Your task to perform on an android device: install app "Google Maps" Image 0: 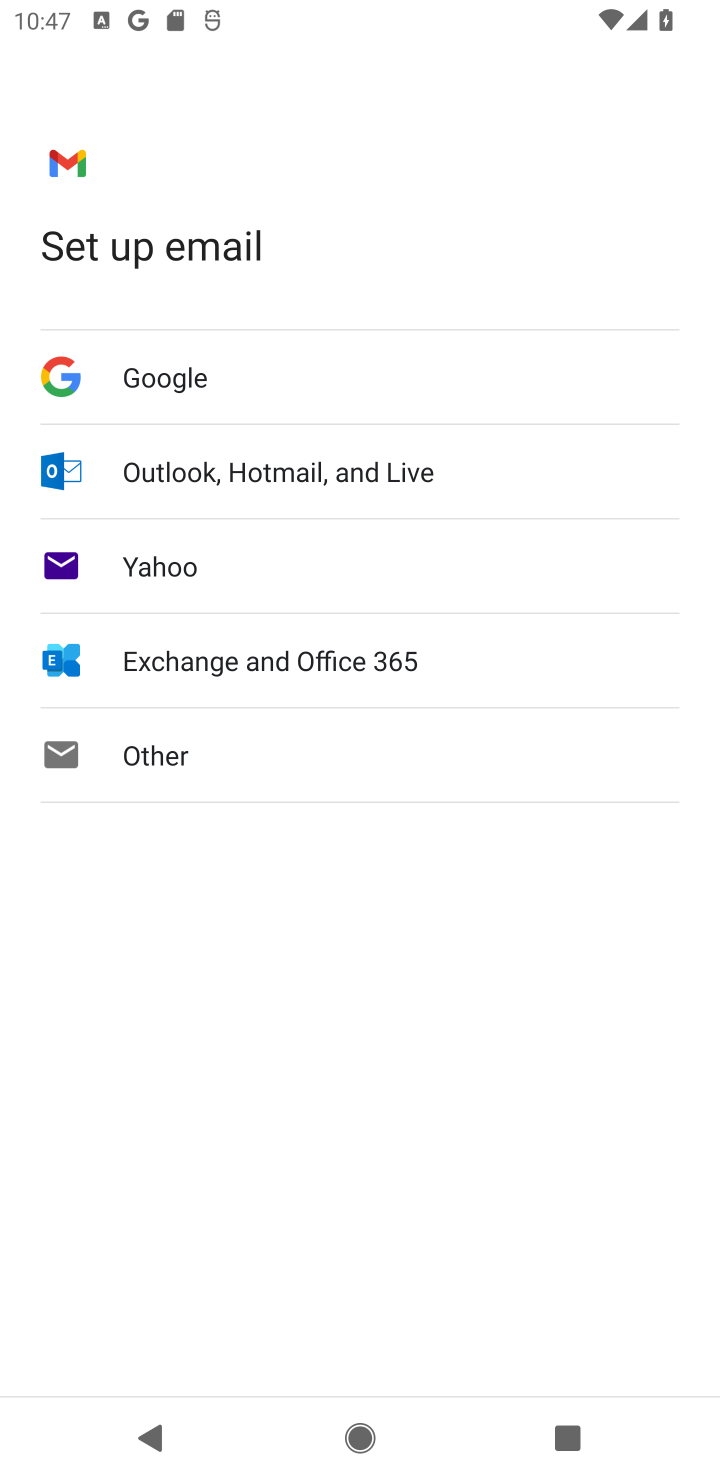
Step 0: press back button
Your task to perform on an android device: install app "Google Maps" Image 1: 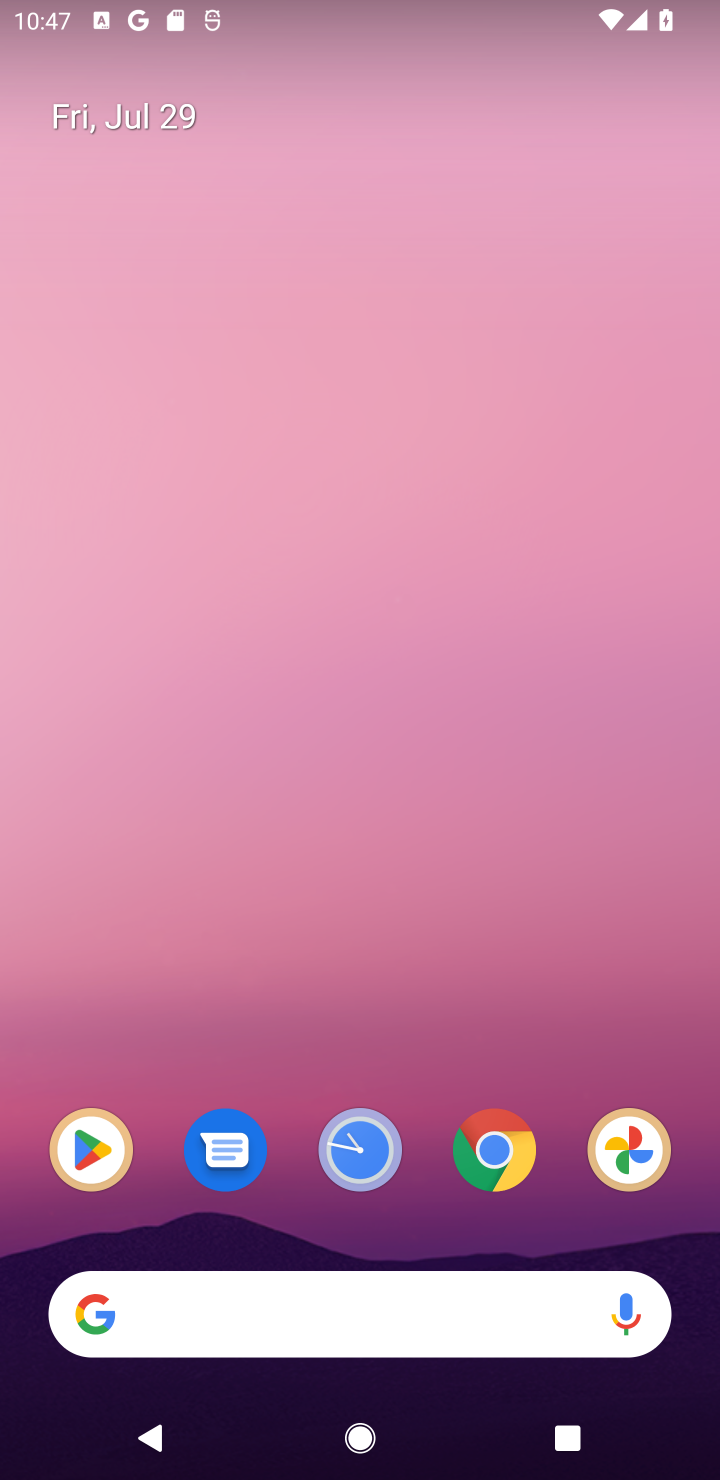
Step 1: click (95, 1138)
Your task to perform on an android device: install app "Google Maps" Image 2: 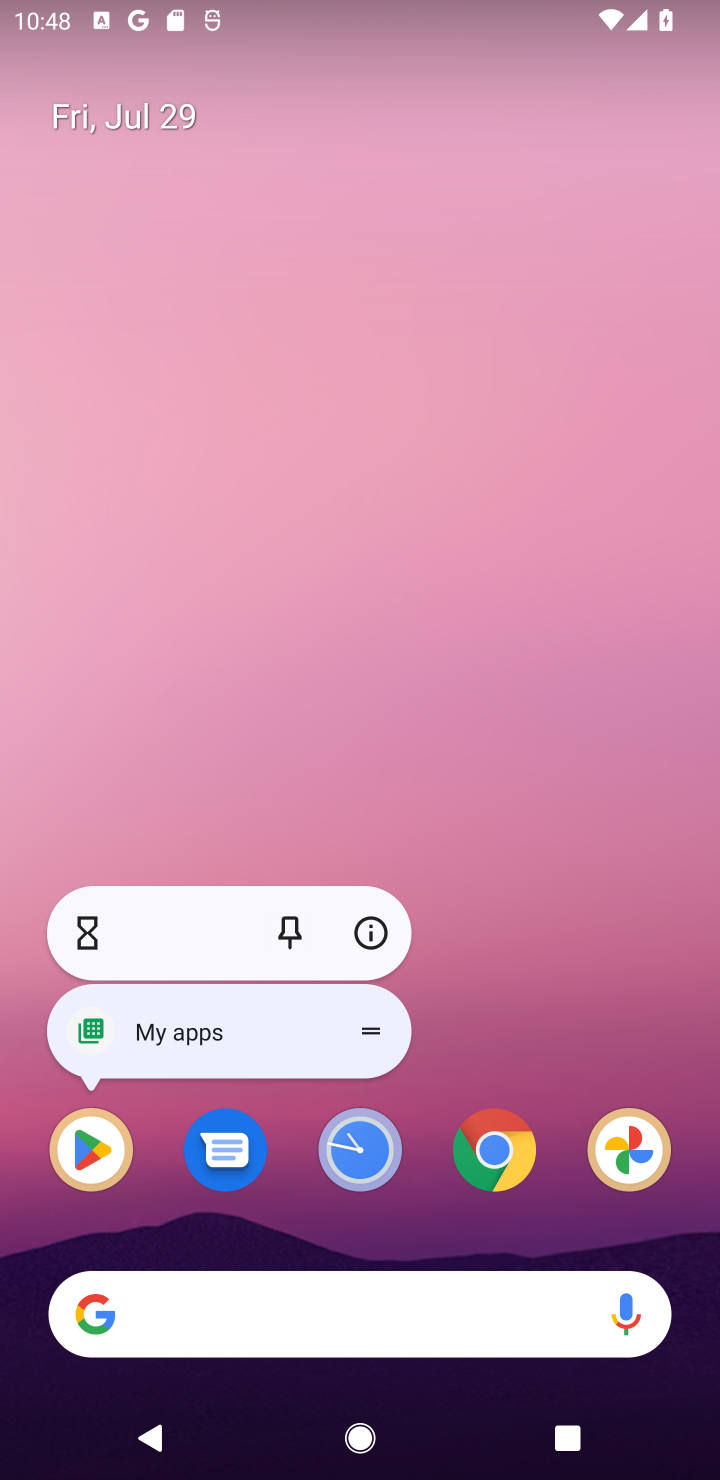
Step 2: click (68, 1151)
Your task to perform on an android device: install app "Google Maps" Image 3: 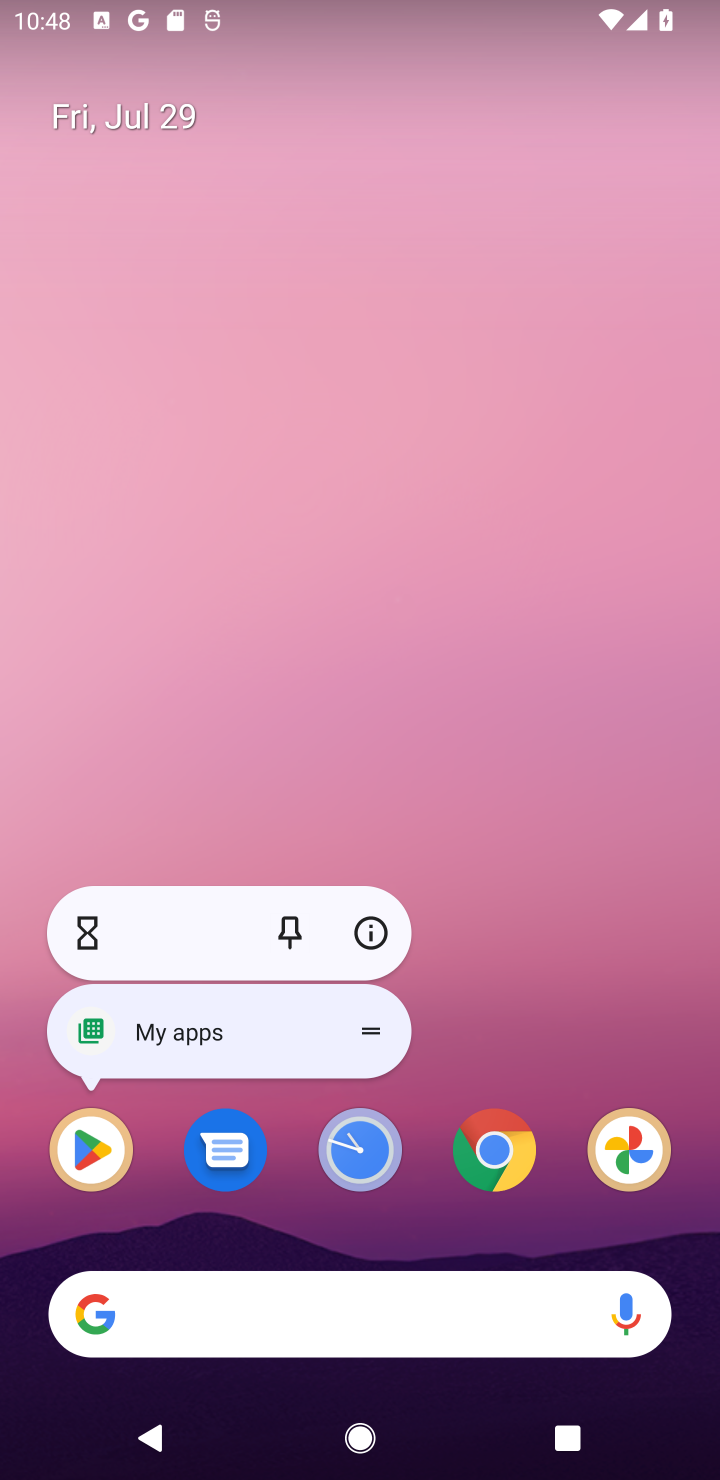
Step 3: click (100, 1141)
Your task to perform on an android device: install app "Google Maps" Image 4: 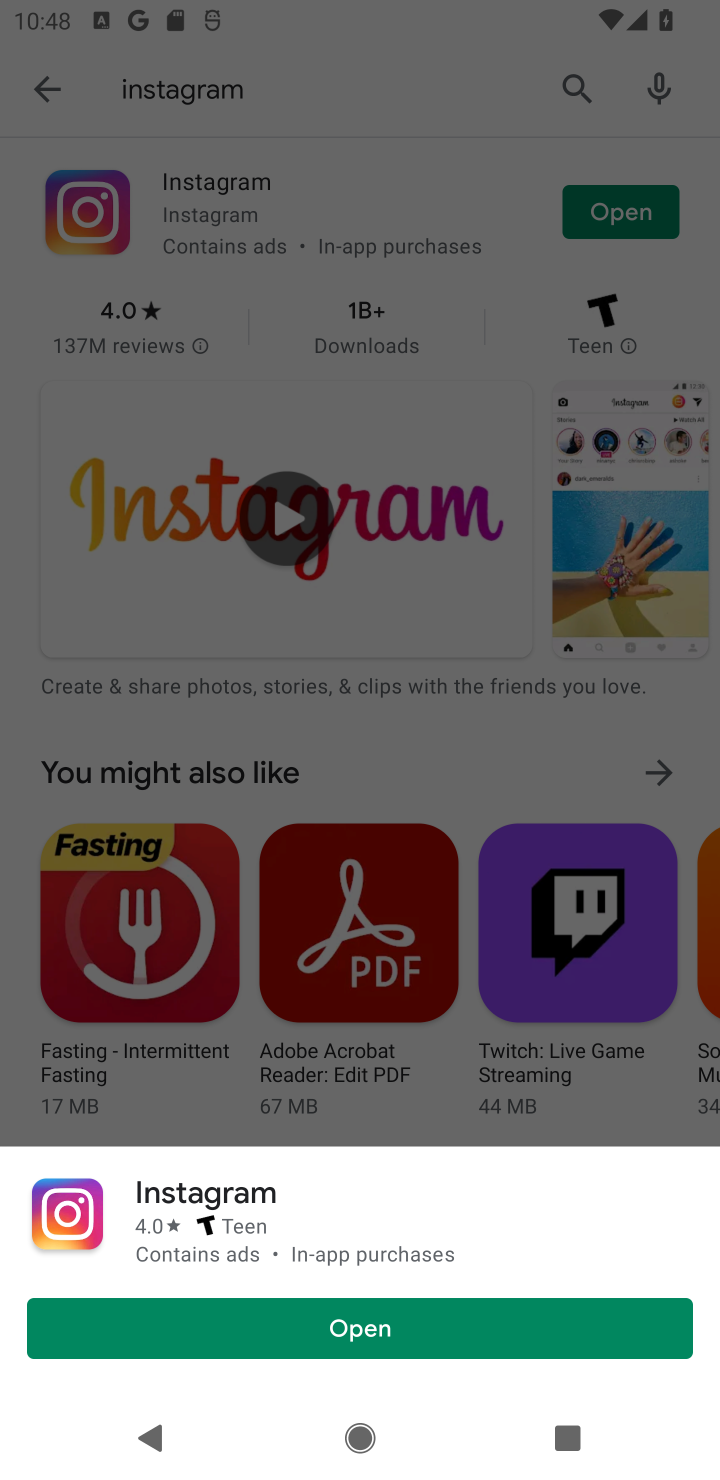
Step 4: click (406, 126)
Your task to perform on an android device: install app "Google Maps" Image 5: 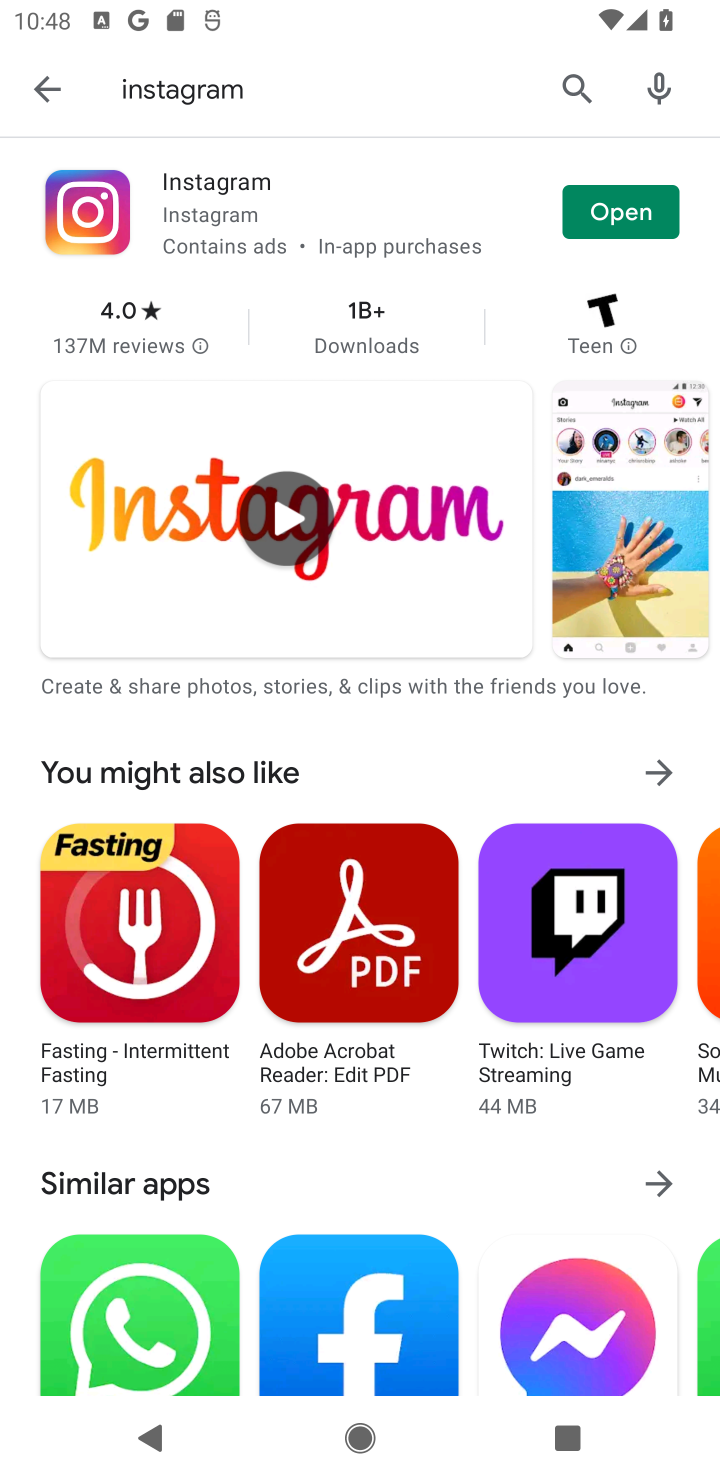
Step 5: click (559, 82)
Your task to perform on an android device: install app "Google Maps" Image 6: 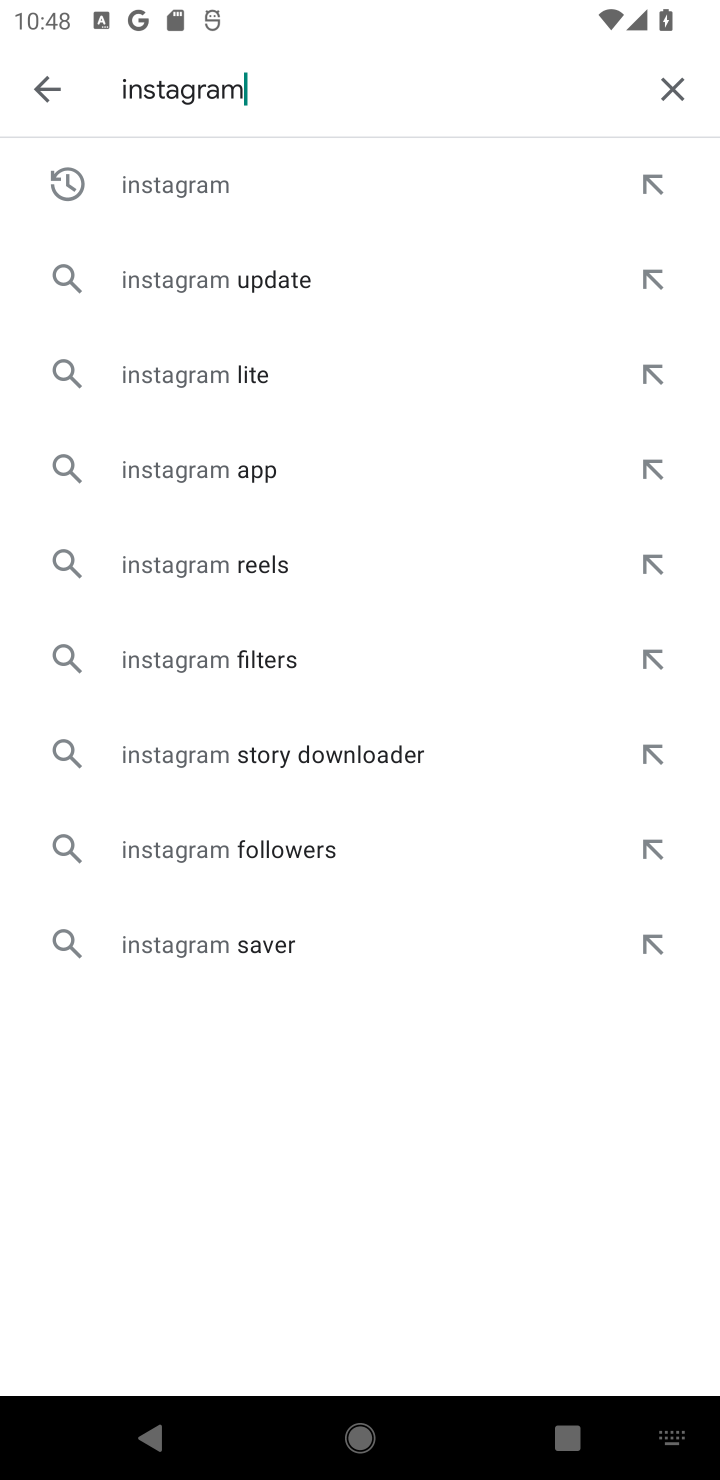
Step 6: click (667, 97)
Your task to perform on an android device: install app "Google Maps" Image 7: 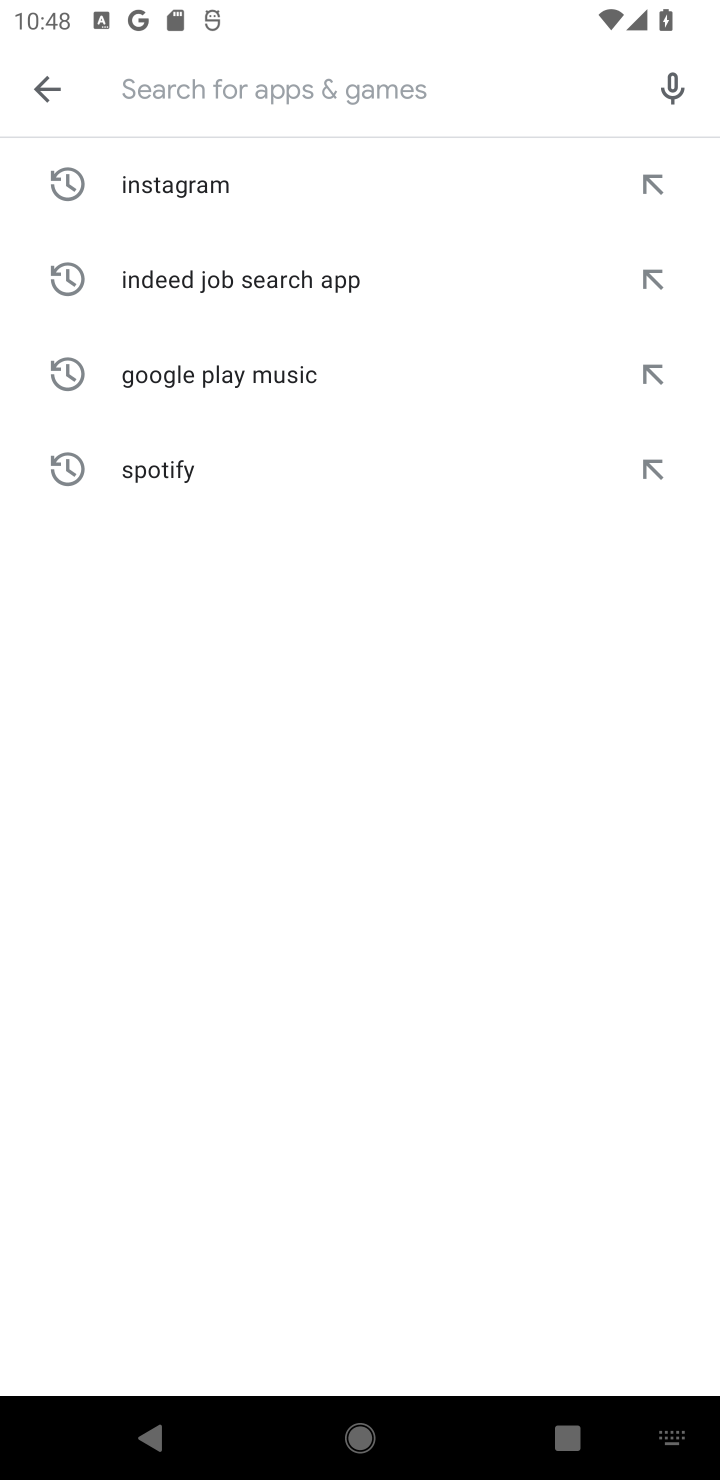
Step 7: click (319, 97)
Your task to perform on an android device: install app "Google Maps" Image 8: 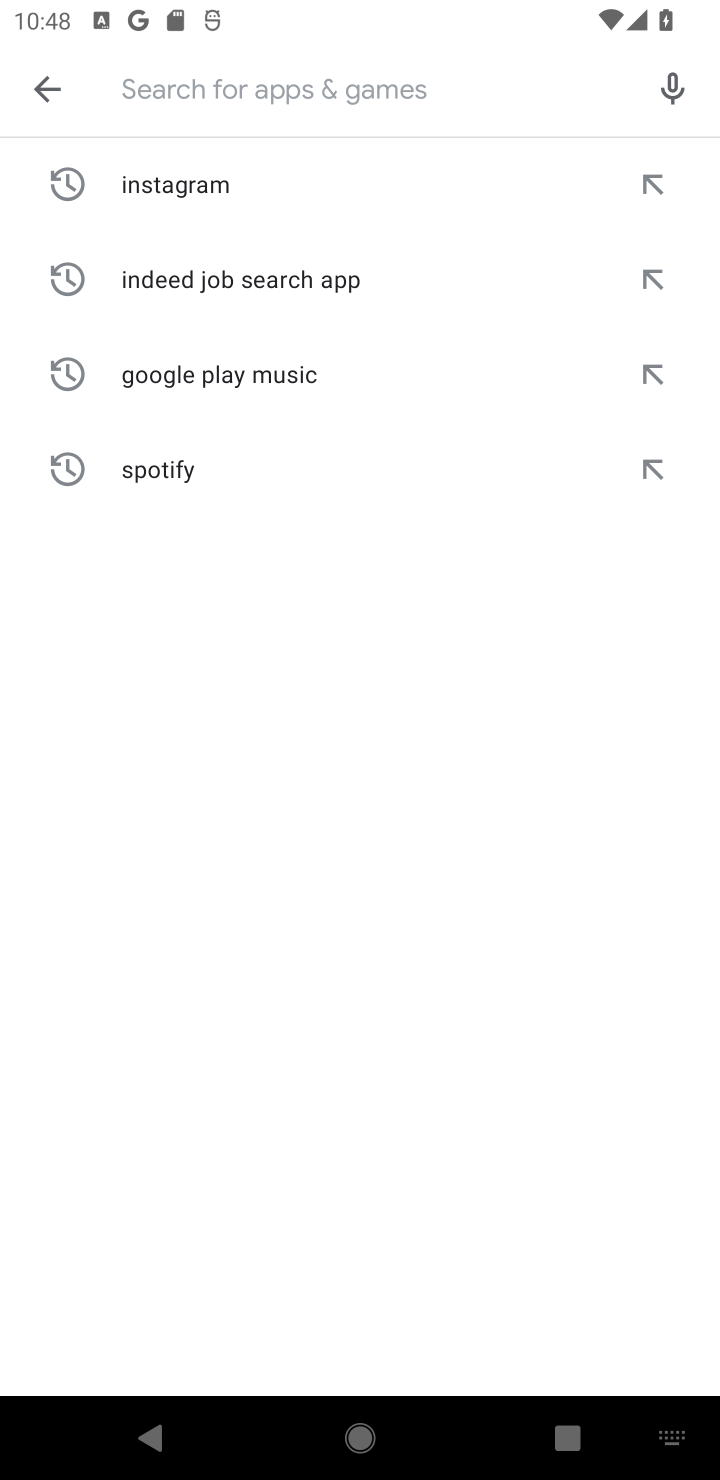
Step 8: type "google maps"
Your task to perform on an android device: install app "Google Maps" Image 9: 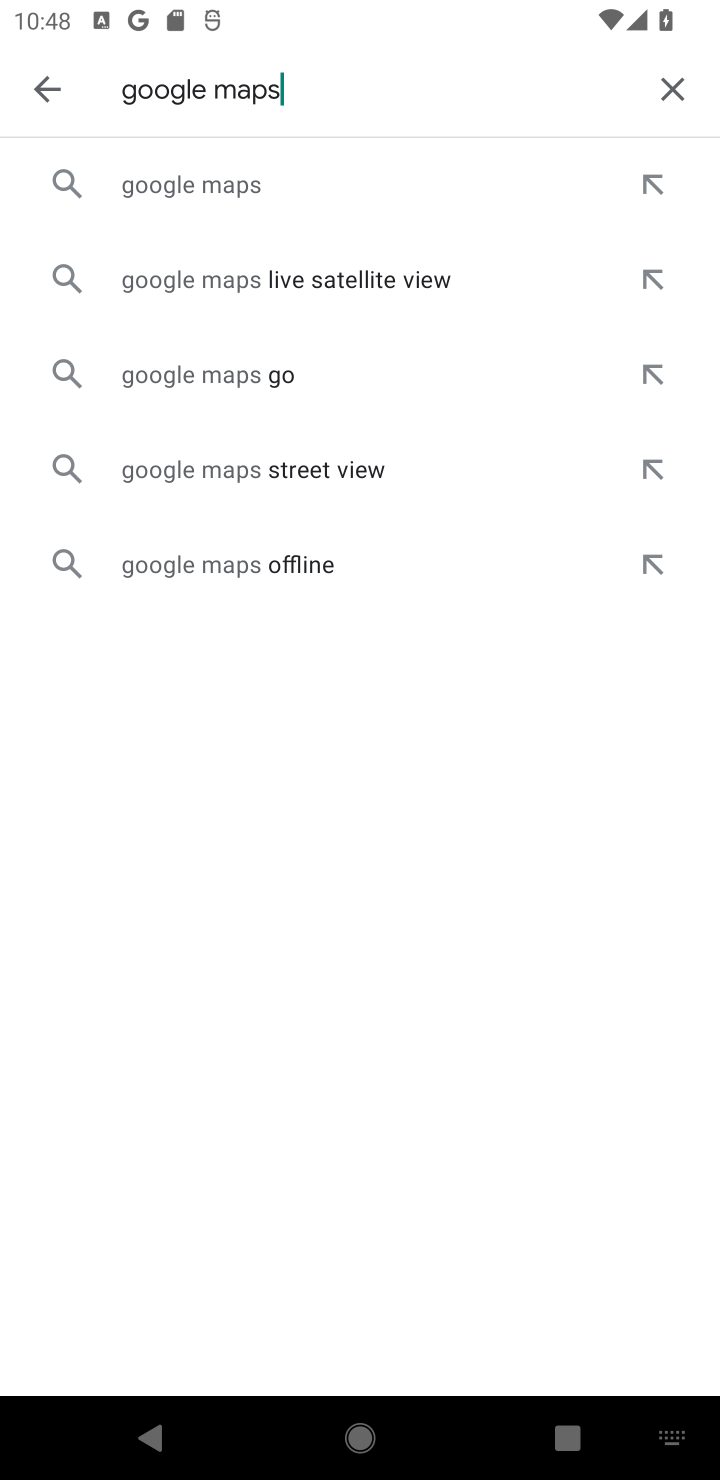
Step 9: click (199, 181)
Your task to perform on an android device: install app "Google Maps" Image 10: 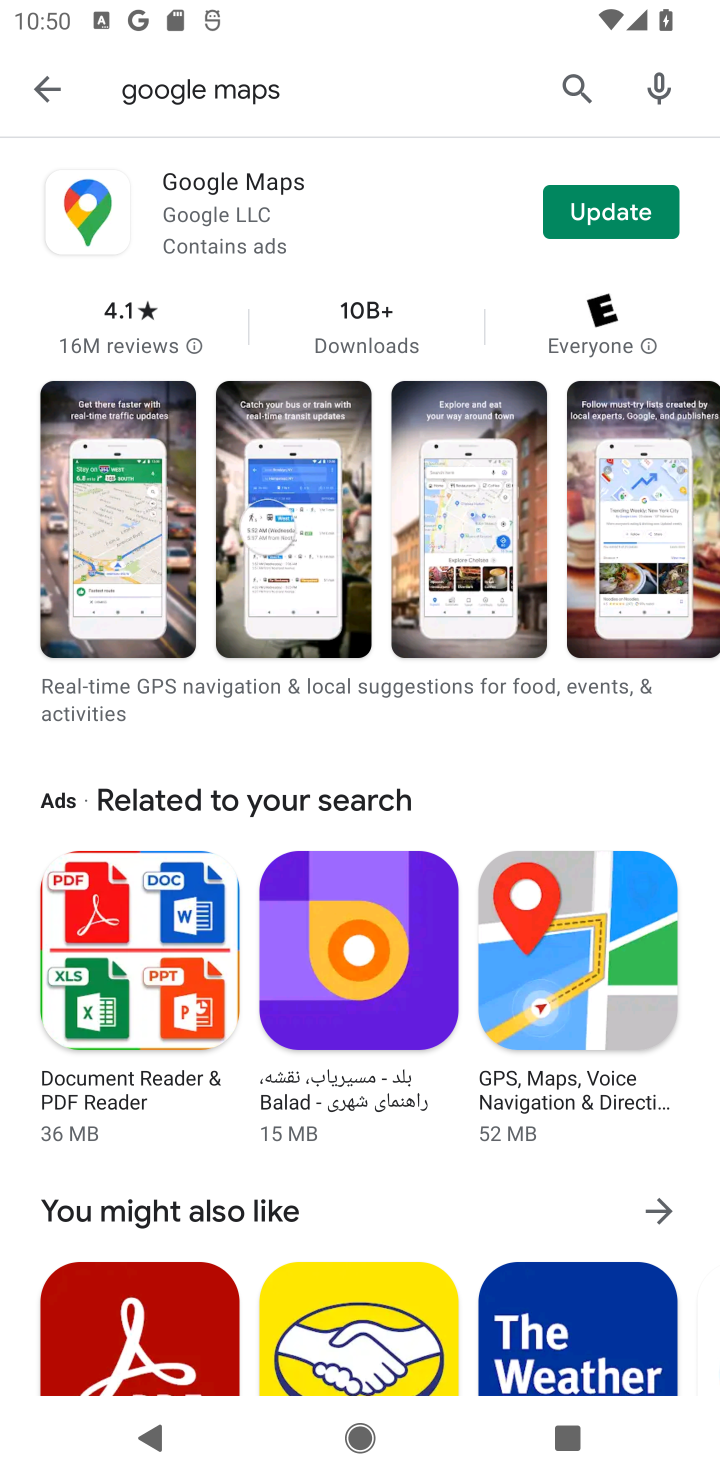
Step 10: task complete